Your task to perform on an android device: Open Google Maps and go to "Timeline" Image 0: 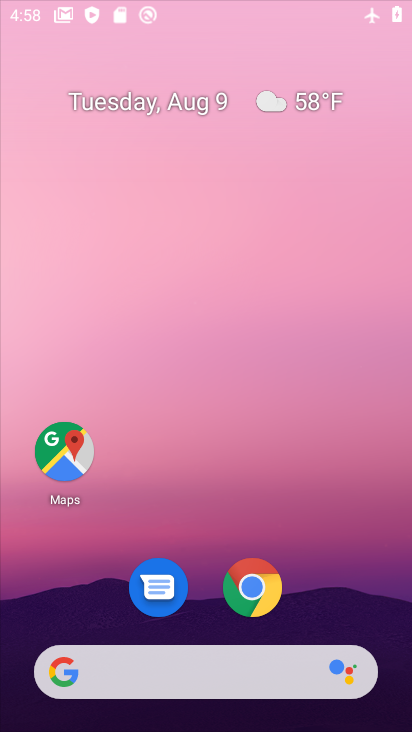
Step 0: press back button
Your task to perform on an android device: Open Google Maps and go to "Timeline" Image 1: 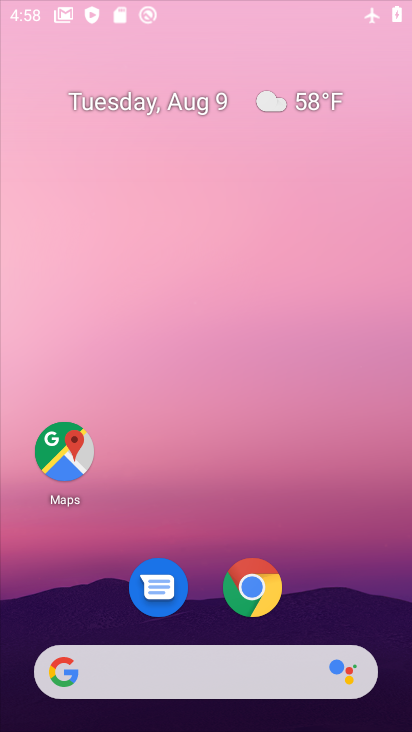
Step 1: click (214, 291)
Your task to perform on an android device: Open Google Maps and go to "Timeline" Image 2: 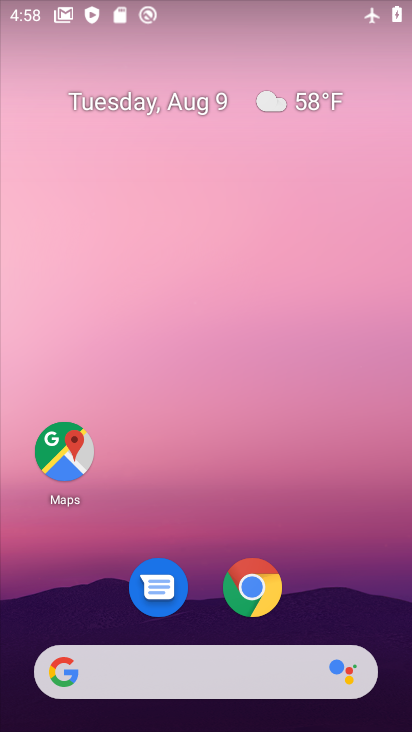
Step 2: drag from (241, 641) to (181, 196)
Your task to perform on an android device: Open Google Maps and go to "Timeline" Image 3: 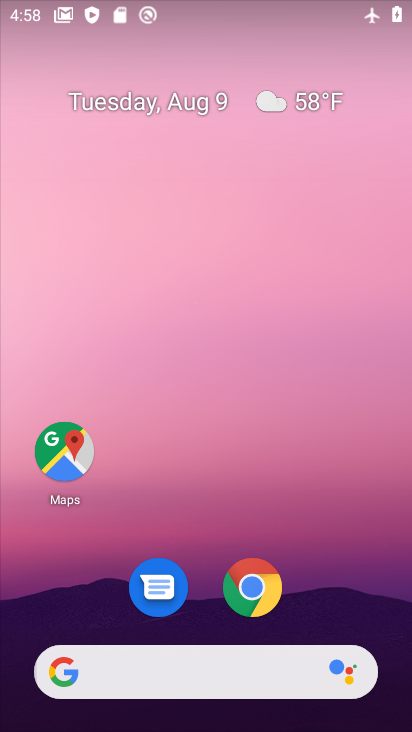
Step 3: drag from (246, 530) to (236, 317)
Your task to perform on an android device: Open Google Maps and go to "Timeline" Image 4: 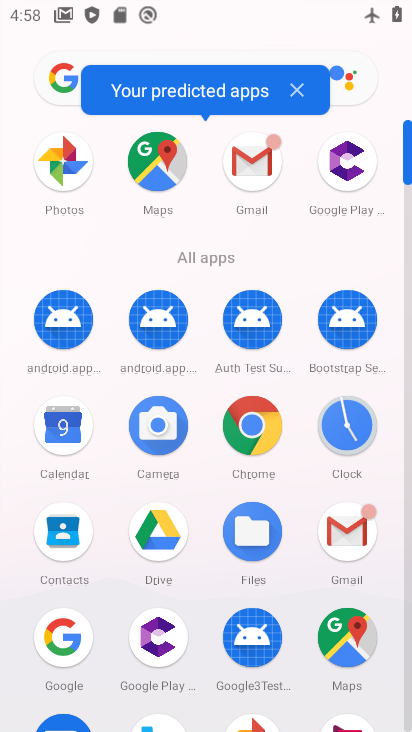
Step 4: click (349, 639)
Your task to perform on an android device: Open Google Maps and go to "Timeline" Image 5: 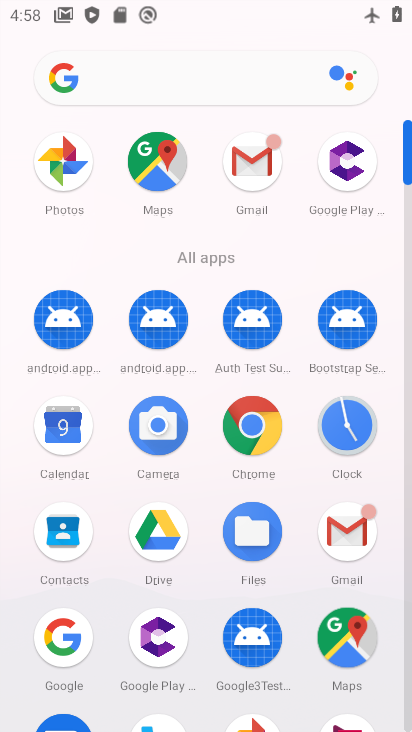
Step 5: click (348, 639)
Your task to perform on an android device: Open Google Maps and go to "Timeline" Image 6: 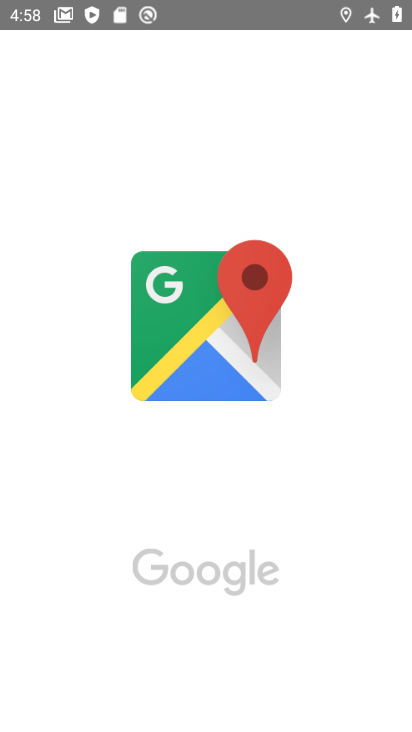
Step 6: click (210, 330)
Your task to perform on an android device: Open Google Maps and go to "Timeline" Image 7: 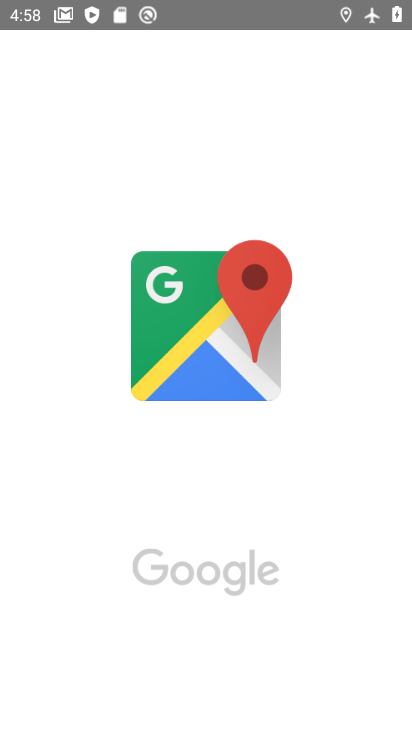
Step 7: click (209, 329)
Your task to perform on an android device: Open Google Maps and go to "Timeline" Image 8: 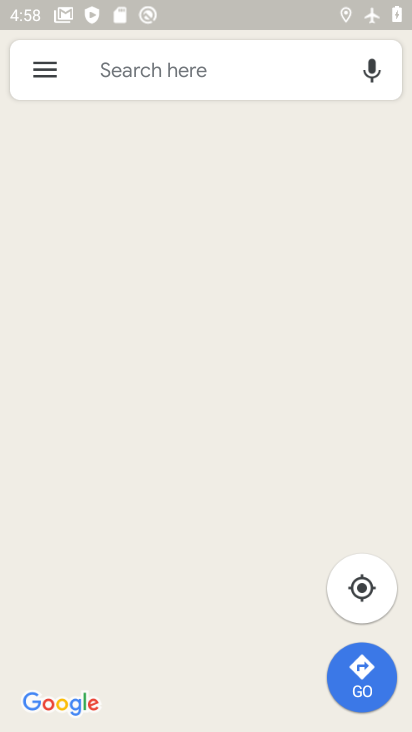
Step 8: click (206, 332)
Your task to perform on an android device: Open Google Maps and go to "Timeline" Image 9: 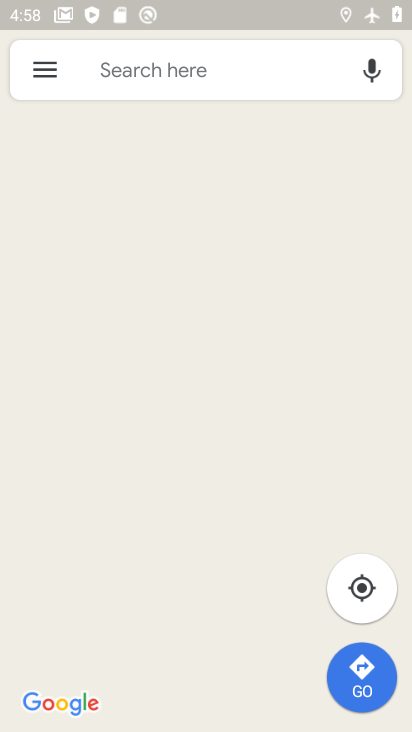
Step 9: click (206, 332)
Your task to perform on an android device: Open Google Maps and go to "Timeline" Image 10: 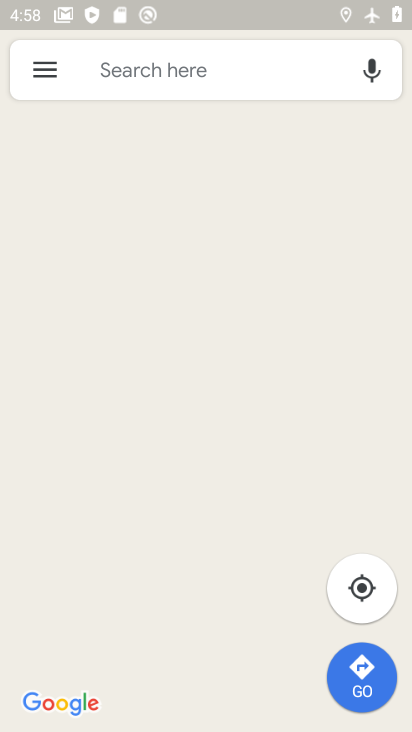
Step 10: click (51, 63)
Your task to perform on an android device: Open Google Maps and go to "Timeline" Image 11: 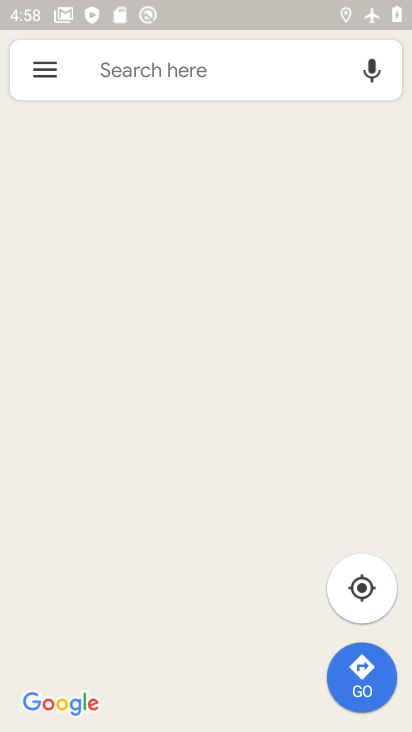
Step 11: click (51, 63)
Your task to perform on an android device: Open Google Maps and go to "Timeline" Image 12: 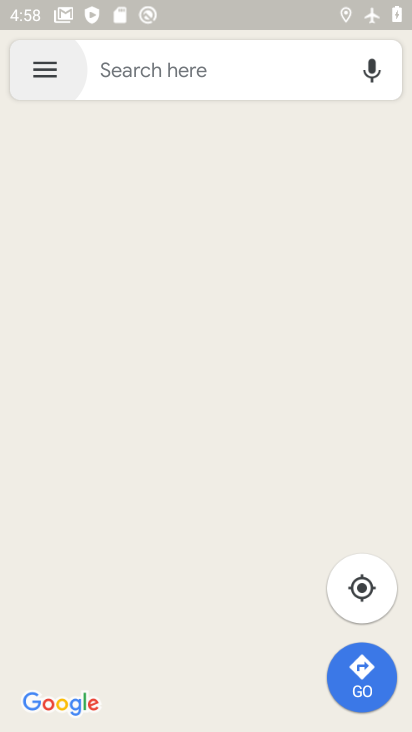
Step 12: click (49, 62)
Your task to perform on an android device: Open Google Maps and go to "Timeline" Image 13: 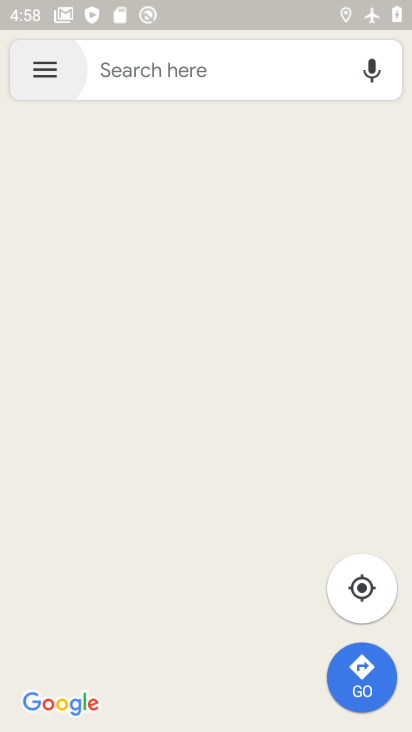
Step 13: click (46, 62)
Your task to perform on an android device: Open Google Maps and go to "Timeline" Image 14: 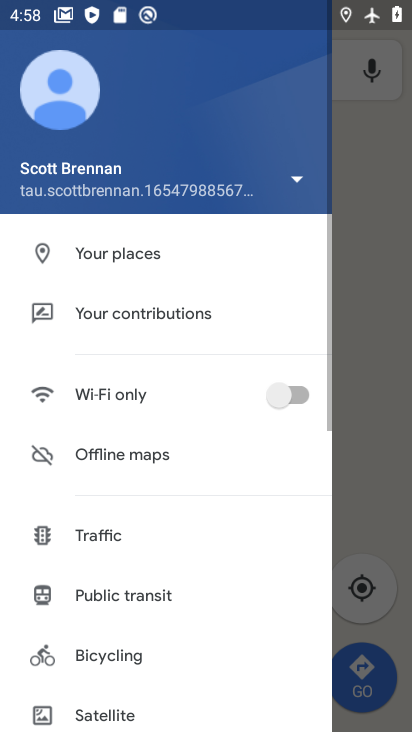
Step 14: click (46, 62)
Your task to perform on an android device: Open Google Maps and go to "Timeline" Image 15: 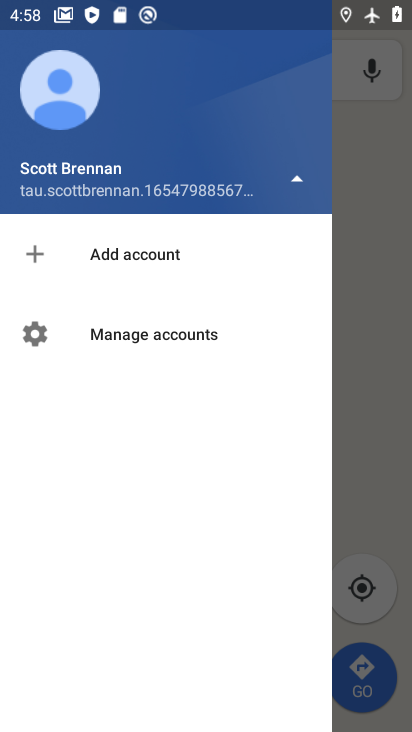
Step 15: click (304, 181)
Your task to perform on an android device: Open Google Maps and go to "Timeline" Image 16: 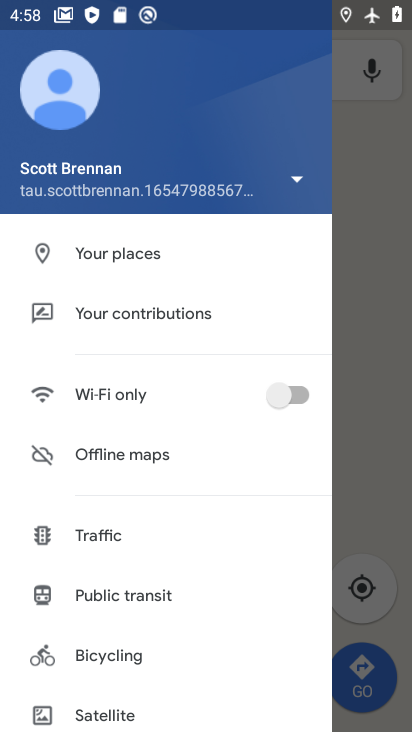
Step 16: drag from (134, 495) to (106, 285)
Your task to perform on an android device: Open Google Maps and go to "Timeline" Image 17: 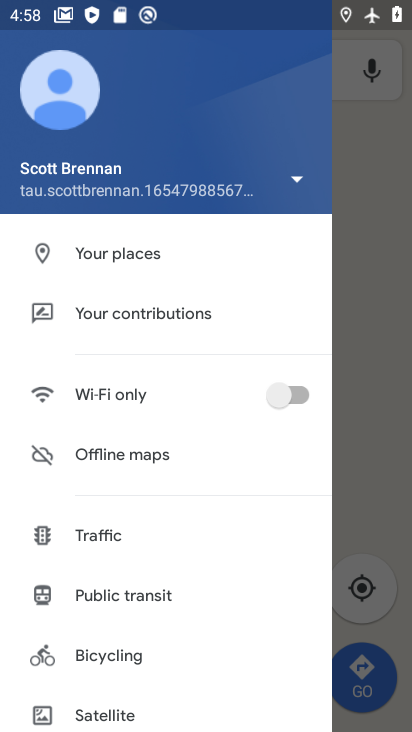
Step 17: drag from (152, 239) to (106, 349)
Your task to perform on an android device: Open Google Maps and go to "Timeline" Image 18: 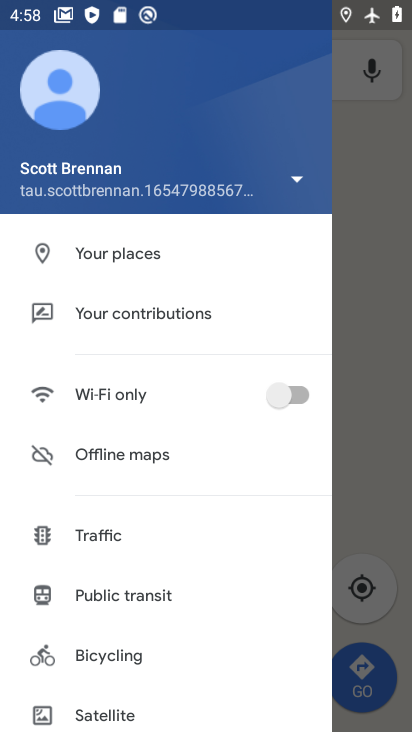
Step 18: drag from (108, 612) to (78, 144)
Your task to perform on an android device: Open Google Maps and go to "Timeline" Image 19: 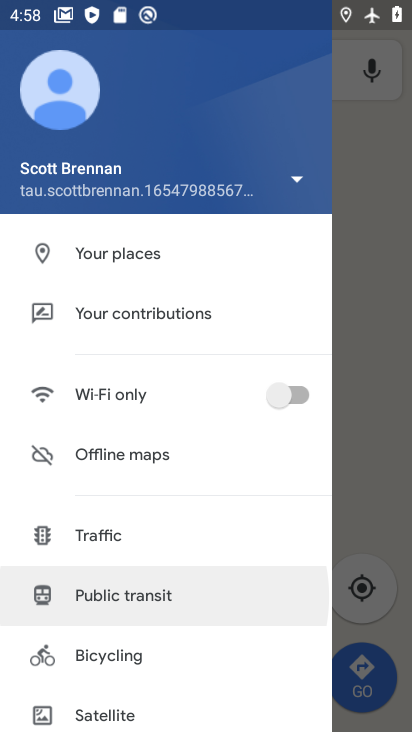
Step 19: drag from (74, 589) to (129, 324)
Your task to perform on an android device: Open Google Maps and go to "Timeline" Image 20: 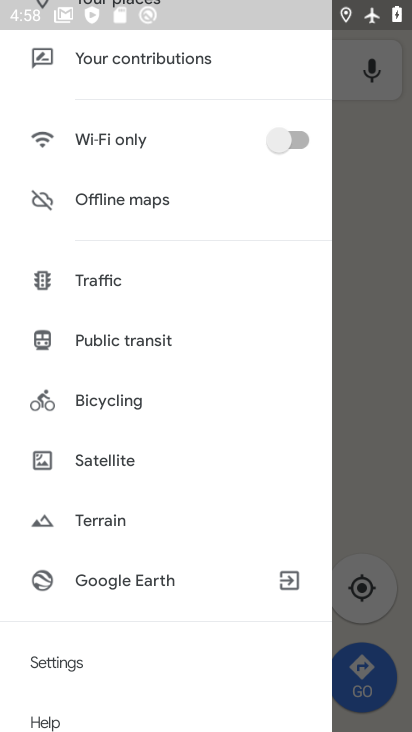
Step 20: drag from (147, 215) to (145, 551)
Your task to perform on an android device: Open Google Maps and go to "Timeline" Image 21: 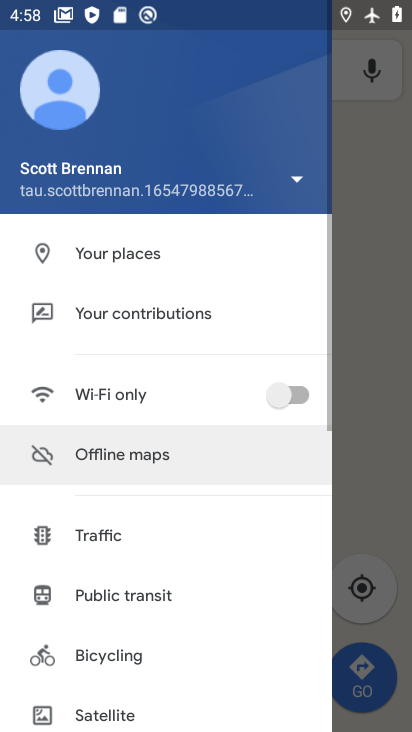
Step 21: drag from (139, 229) to (138, 633)
Your task to perform on an android device: Open Google Maps and go to "Timeline" Image 22: 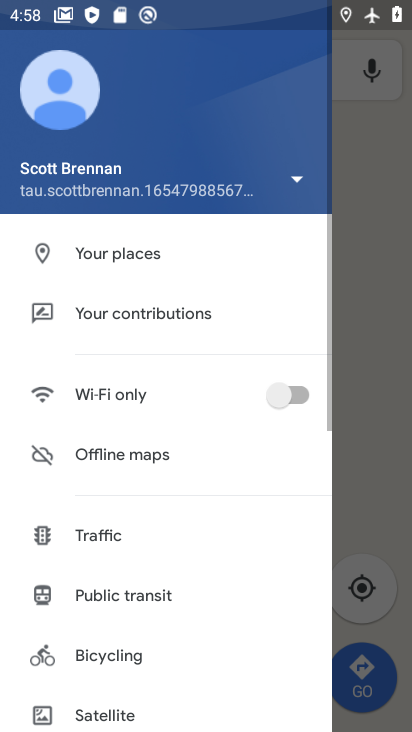
Step 22: drag from (164, 239) to (165, 328)
Your task to perform on an android device: Open Google Maps and go to "Timeline" Image 23: 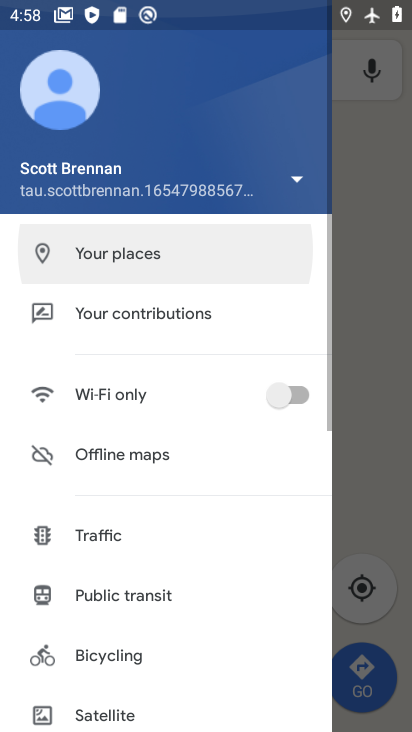
Step 23: click (156, 306)
Your task to perform on an android device: Open Google Maps and go to "Timeline" Image 24: 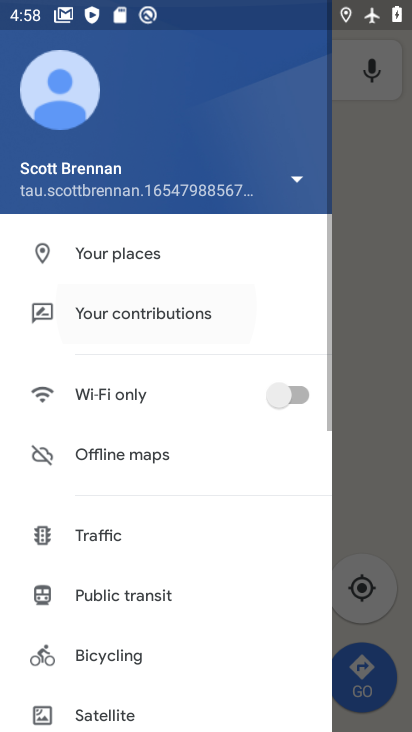
Step 24: click (156, 303)
Your task to perform on an android device: Open Google Maps and go to "Timeline" Image 25: 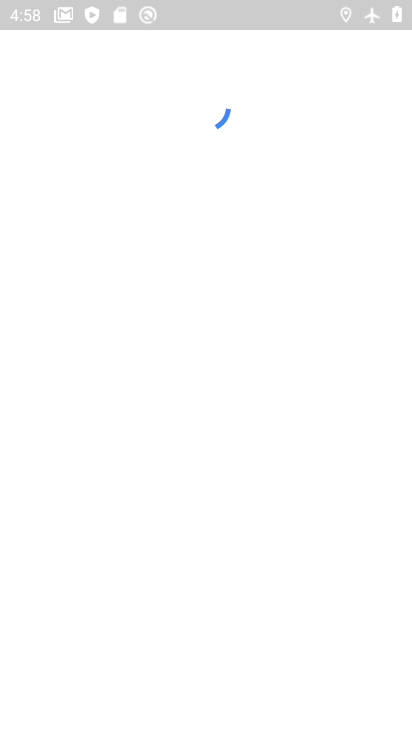
Step 25: task complete